Your task to perform on an android device: Go to calendar. Show me events next week Image 0: 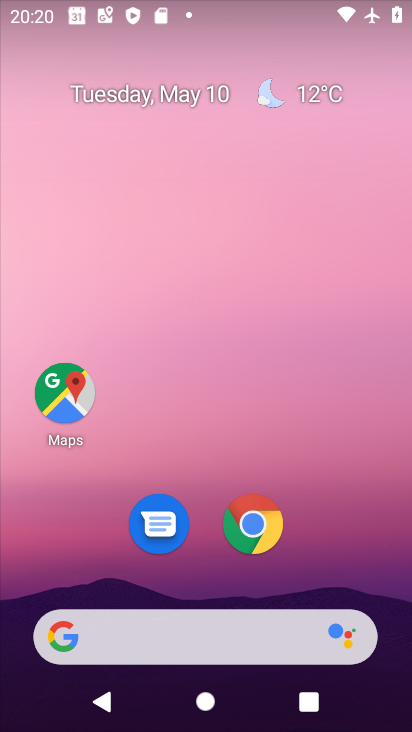
Step 0: drag from (336, 494) to (211, 13)
Your task to perform on an android device: Go to calendar. Show me events next week Image 1: 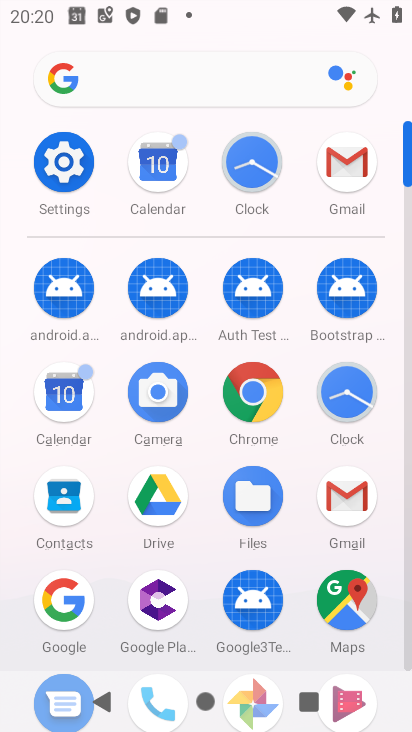
Step 1: click (166, 162)
Your task to perform on an android device: Go to calendar. Show me events next week Image 2: 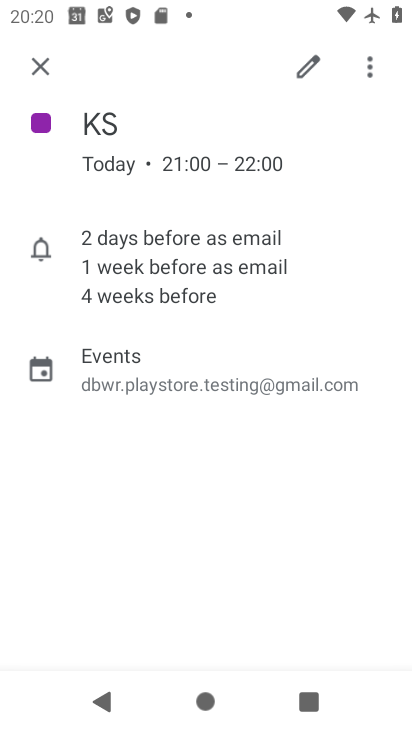
Step 2: click (37, 61)
Your task to perform on an android device: Go to calendar. Show me events next week Image 3: 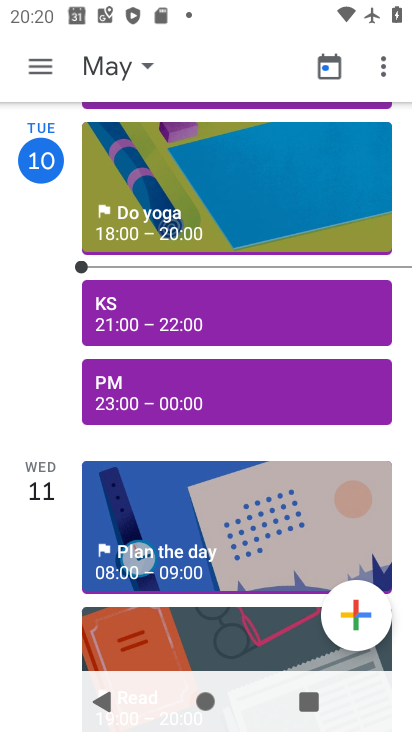
Step 3: click (38, 63)
Your task to perform on an android device: Go to calendar. Show me events next week Image 4: 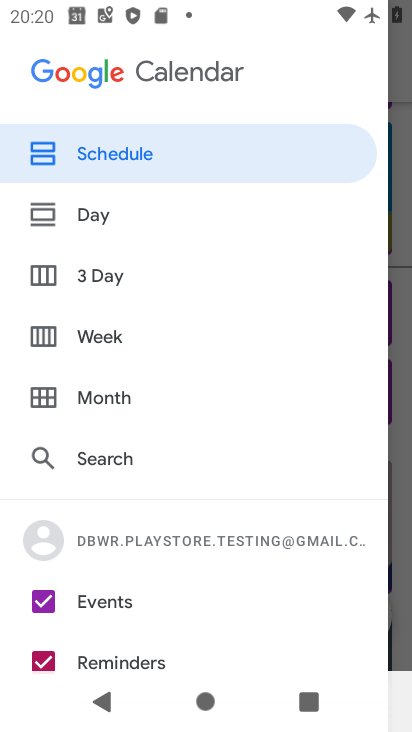
Step 4: click (38, 326)
Your task to perform on an android device: Go to calendar. Show me events next week Image 5: 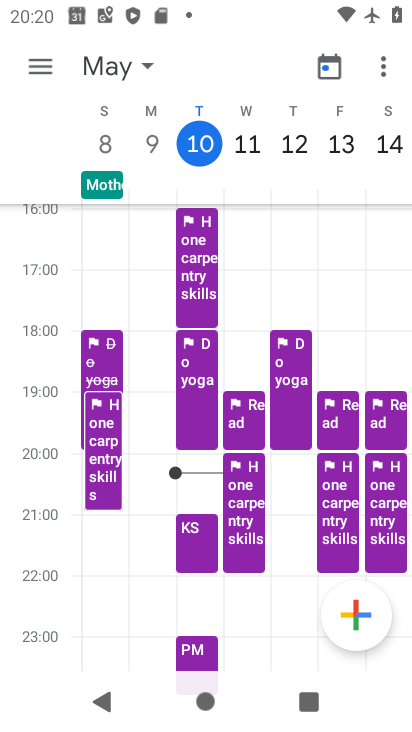
Step 5: task complete